Your task to perform on an android device: remove spam from my inbox in the gmail app Image 0: 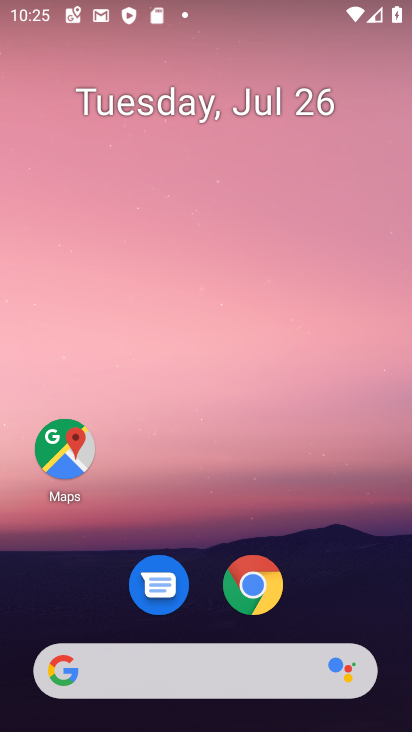
Step 0: drag from (243, 536) to (197, 202)
Your task to perform on an android device: remove spam from my inbox in the gmail app Image 1: 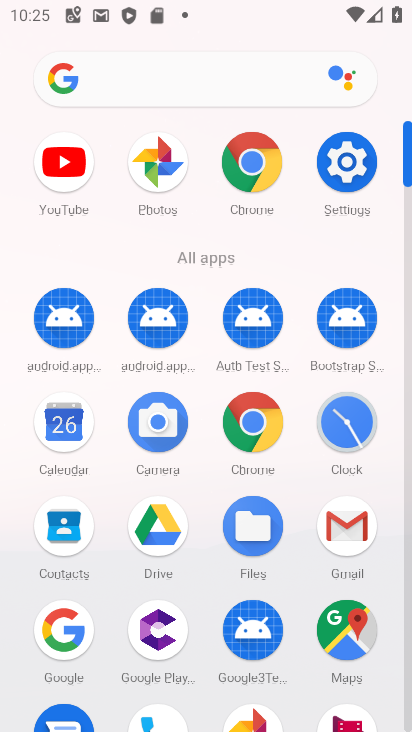
Step 1: click (350, 532)
Your task to perform on an android device: remove spam from my inbox in the gmail app Image 2: 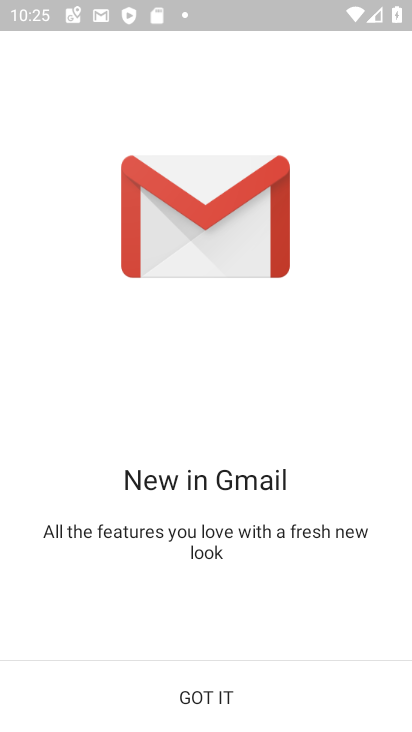
Step 2: click (200, 697)
Your task to perform on an android device: remove spam from my inbox in the gmail app Image 3: 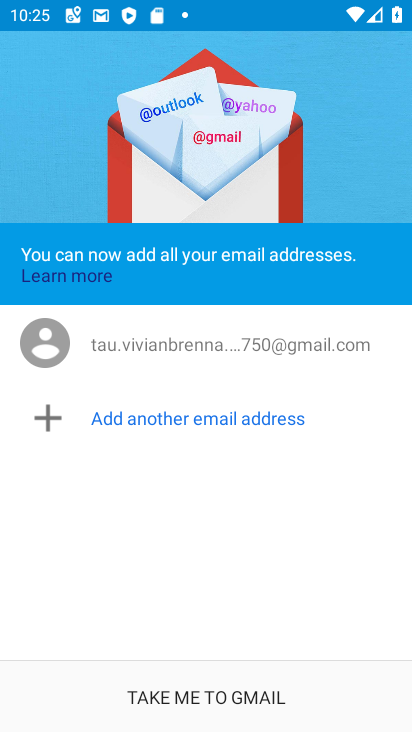
Step 3: click (201, 692)
Your task to perform on an android device: remove spam from my inbox in the gmail app Image 4: 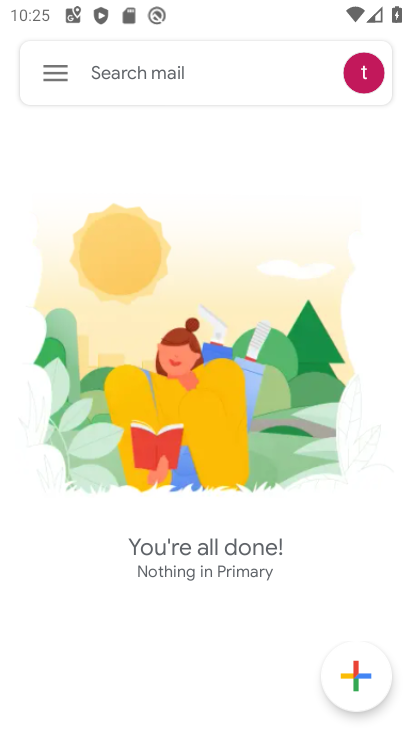
Step 4: click (52, 80)
Your task to perform on an android device: remove spam from my inbox in the gmail app Image 5: 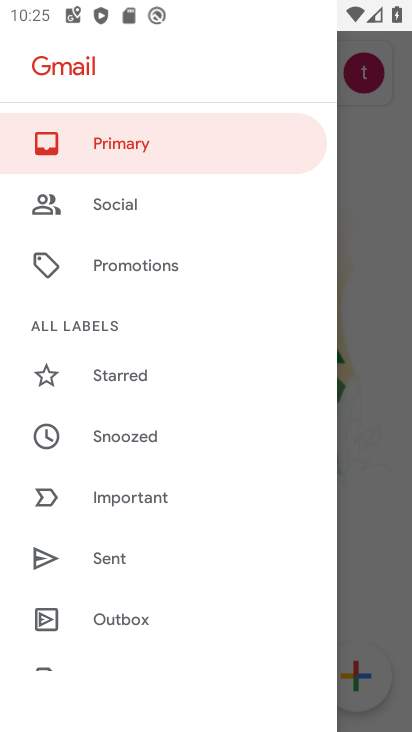
Step 5: drag from (266, 593) to (230, 236)
Your task to perform on an android device: remove spam from my inbox in the gmail app Image 6: 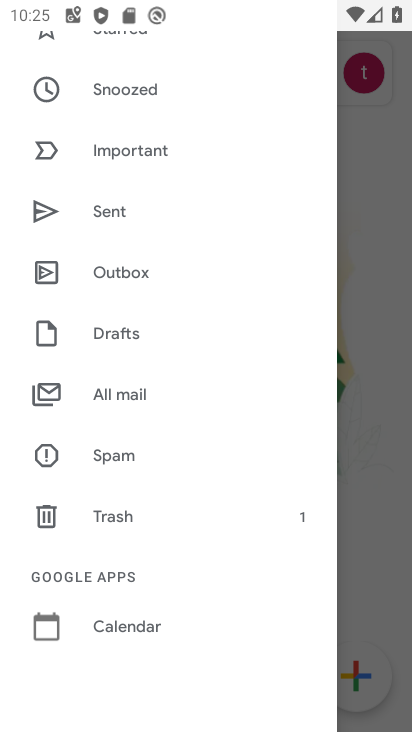
Step 6: click (121, 464)
Your task to perform on an android device: remove spam from my inbox in the gmail app Image 7: 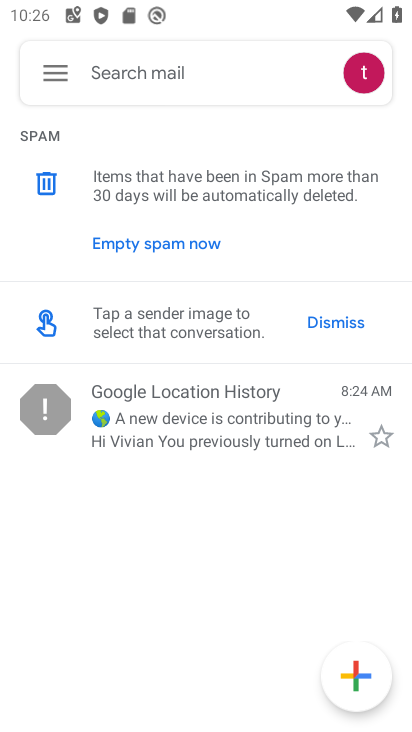
Step 7: drag from (270, 429) to (311, 457)
Your task to perform on an android device: remove spam from my inbox in the gmail app Image 8: 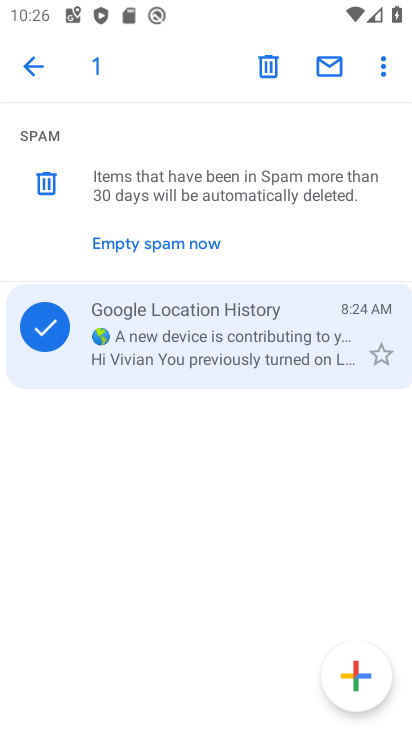
Step 8: click (262, 58)
Your task to perform on an android device: remove spam from my inbox in the gmail app Image 9: 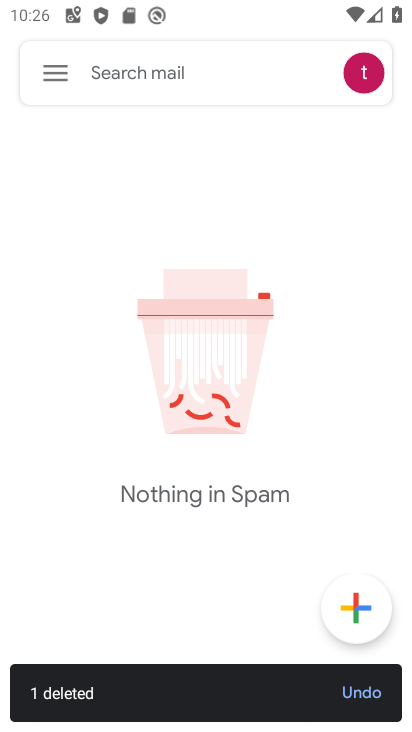
Step 9: task complete